Your task to perform on an android device: Search for the best movies of 2019  Image 0: 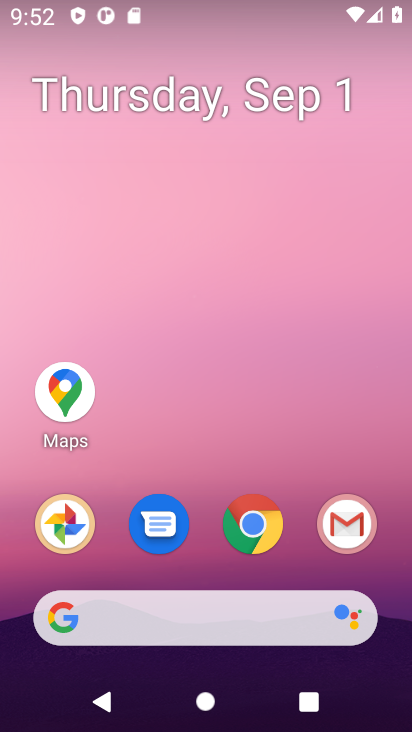
Step 0: drag from (399, 572) to (389, 126)
Your task to perform on an android device: Search for the best movies of 2019  Image 1: 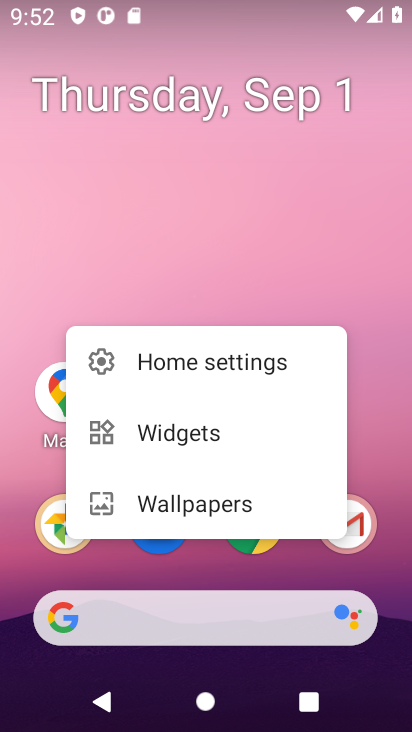
Step 1: click (389, 431)
Your task to perform on an android device: Search for the best movies of 2019  Image 2: 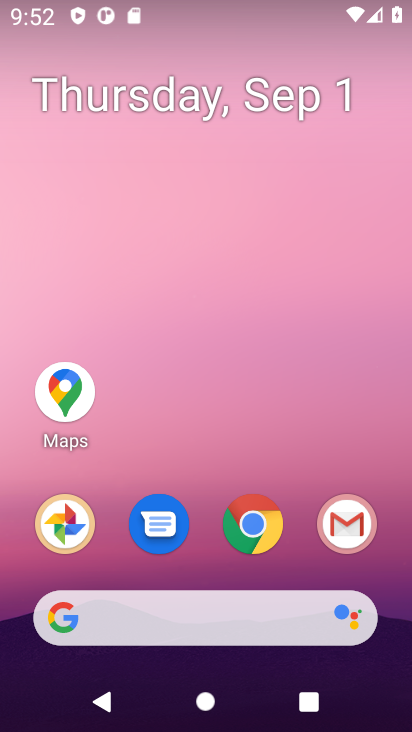
Step 2: drag from (374, 423) to (377, 64)
Your task to perform on an android device: Search for the best movies of 2019  Image 3: 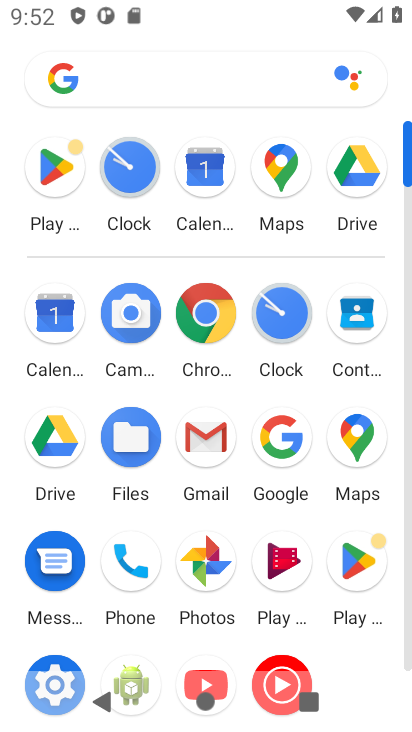
Step 3: click (207, 307)
Your task to perform on an android device: Search for the best movies of 2019  Image 4: 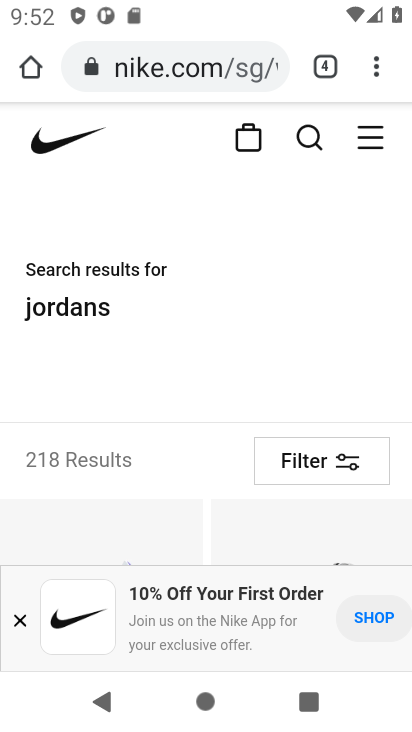
Step 4: press back button
Your task to perform on an android device: Search for the best movies of 2019  Image 5: 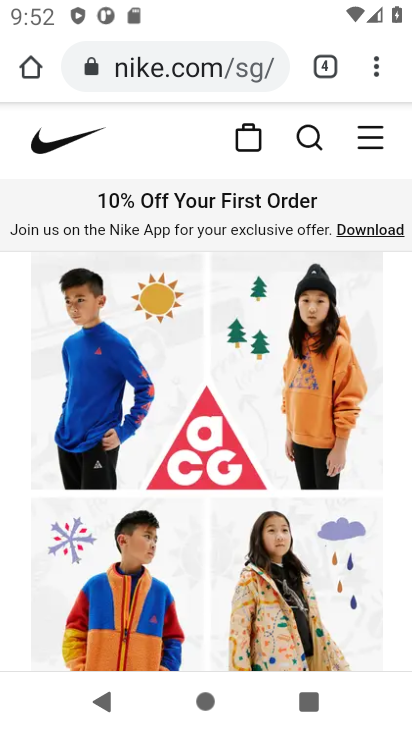
Step 5: press back button
Your task to perform on an android device: Search for the best movies of 2019  Image 6: 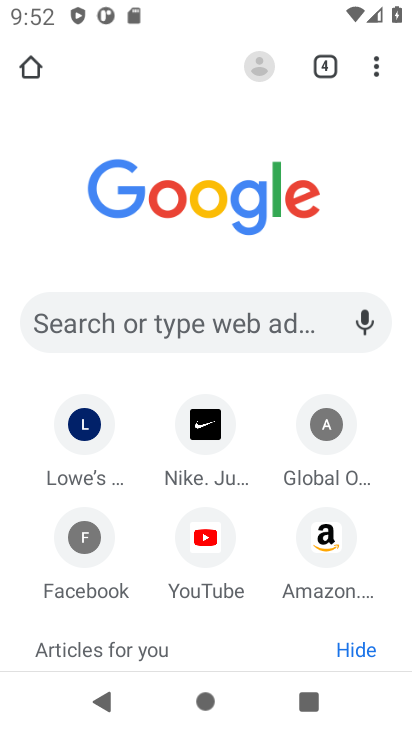
Step 6: click (259, 314)
Your task to perform on an android device: Search for the best movies of 2019  Image 7: 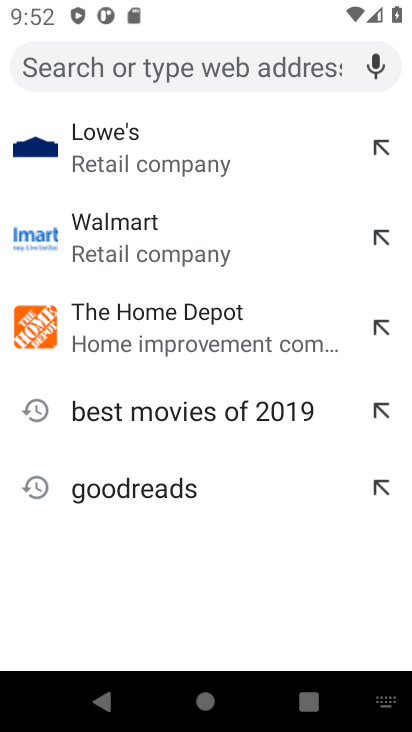
Step 7: click (230, 413)
Your task to perform on an android device: Search for the best movies of 2019  Image 8: 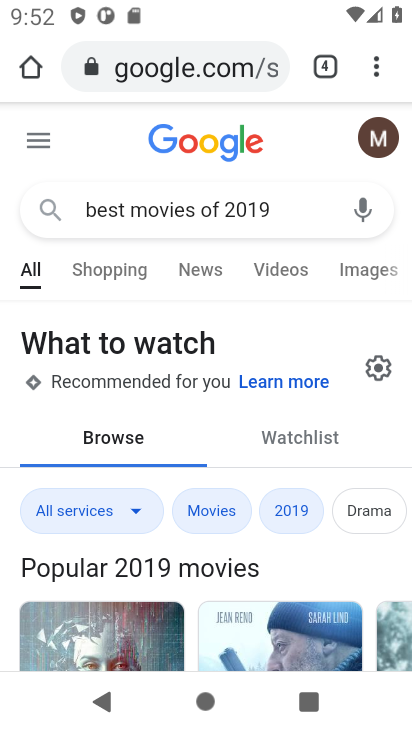
Step 8: task complete